Your task to perform on an android device: Go to Amazon Image 0: 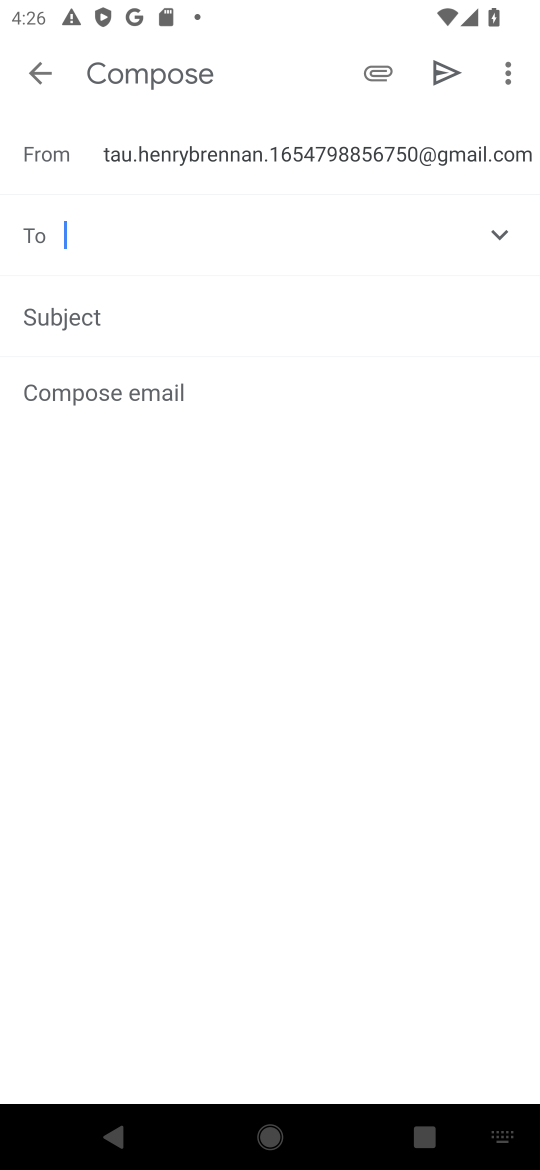
Step 0: press home button
Your task to perform on an android device: Go to Amazon Image 1: 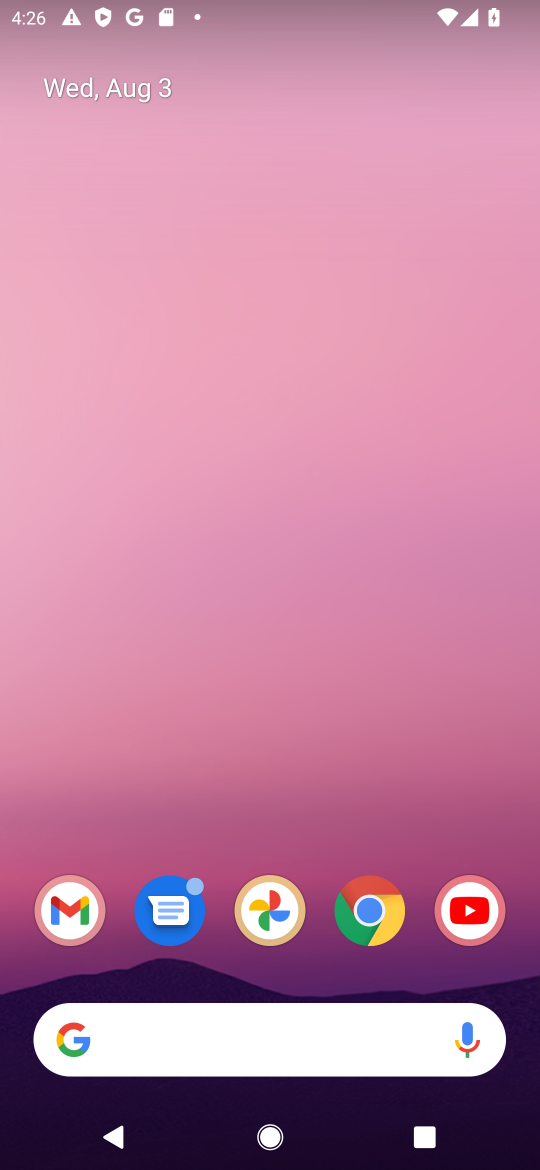
Step 1: click (147, 1045)
Your task to perform on an android device: Go to Amazon Image 2: 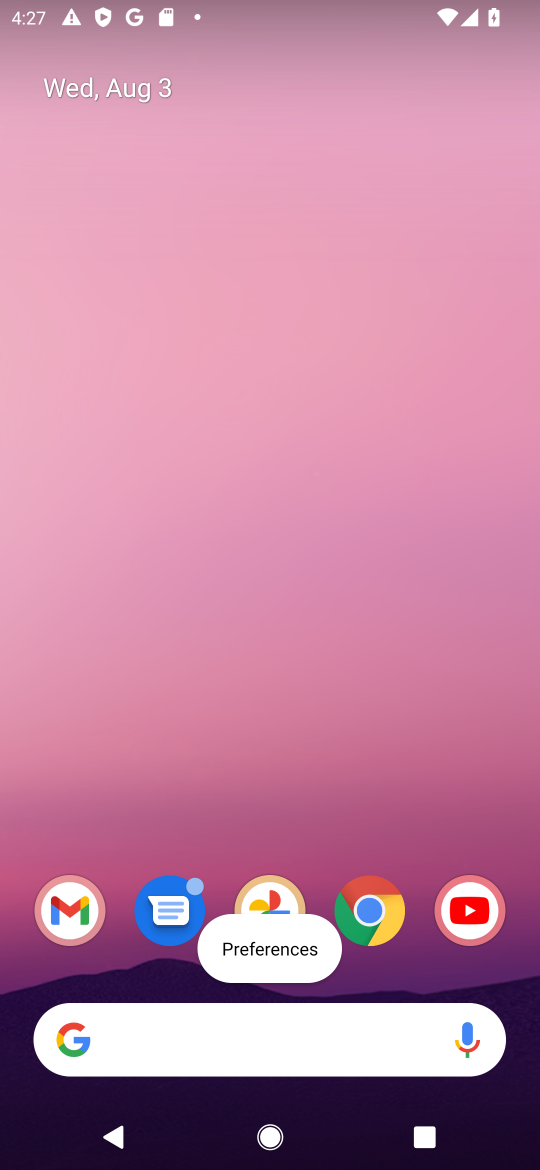
Step 2: click (185, 1036)
Your task to perform on an android device: Go to Amazon Image 3: 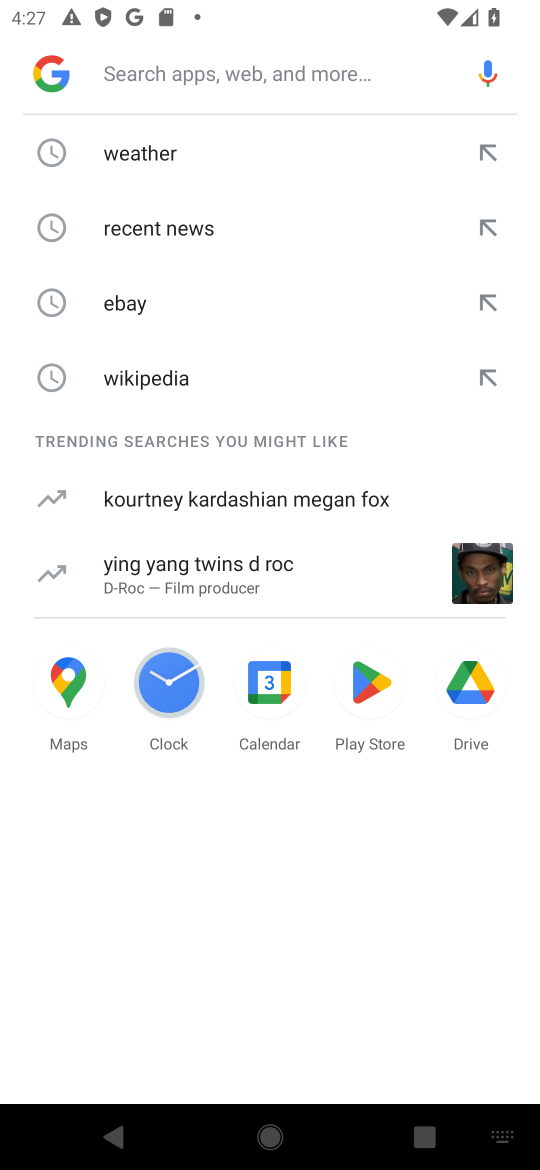
Step 3: type "Amazon"
Your task to perform on an android device: Go to Amazon Image 4: 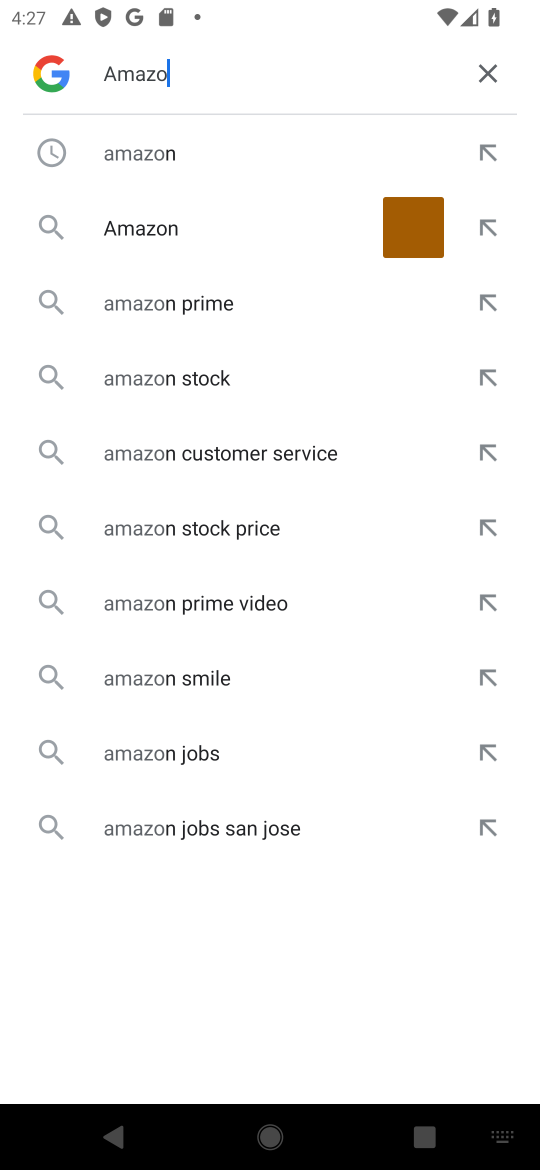
Step 4: type ""
Your task to perform on an android device: Go to Amazon Image 5: 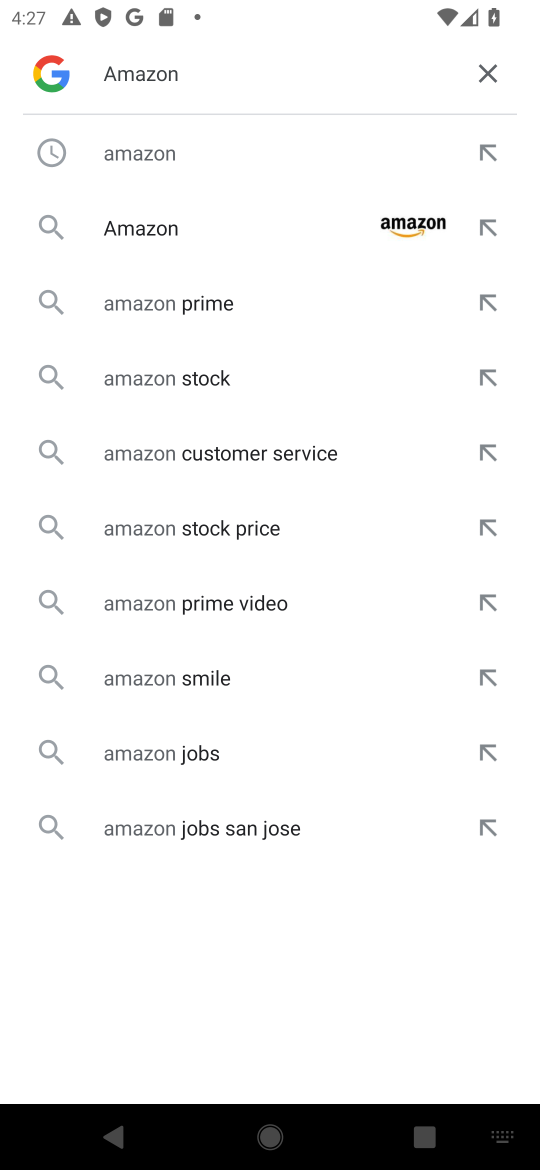
Step 5: click (151, 214)
Your task to perform on an android device: Go to Amazon Image 6: 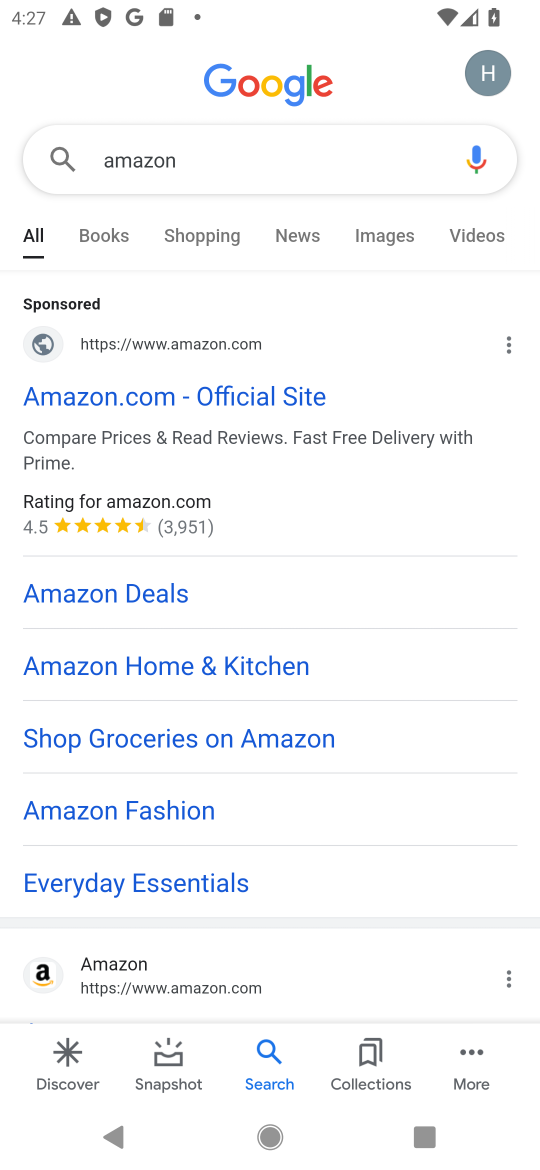
Step 6: task complete